Your task to perform on an android device: add a label to a message in the gmail app Image 0: 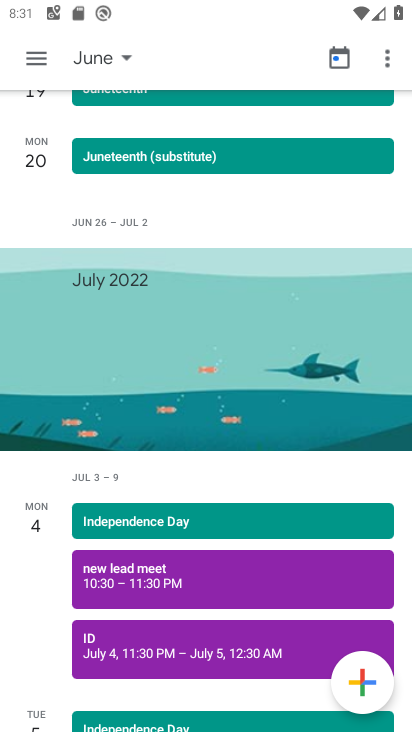
Step 0: drag from (352, 602) to (411, 283)
Your task to perform on an android device: add a label to a message in the gmail app Image 1: 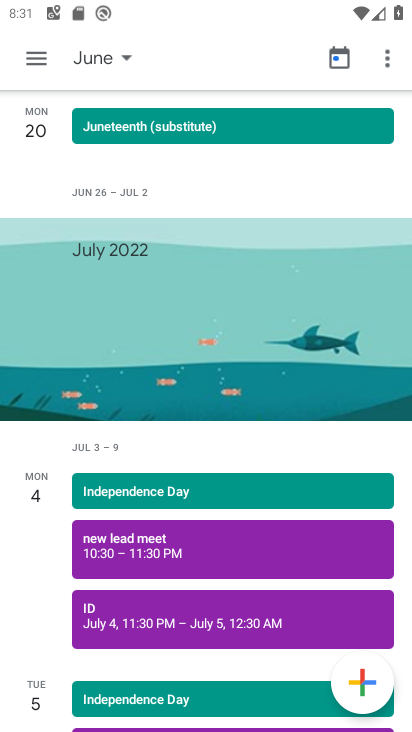
Step 1: press home button
Your task to perform on an android device: add a label to a message in the gmail app Image 2: 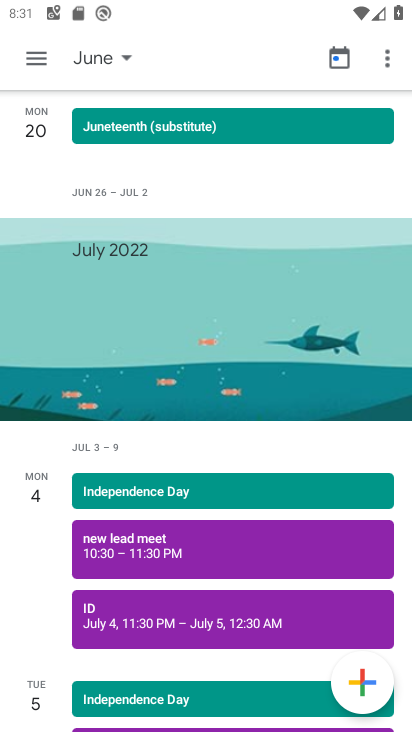
Step 2: press home button
Your task to perform on an android device: add a label to a message in the gmail app Image 3: 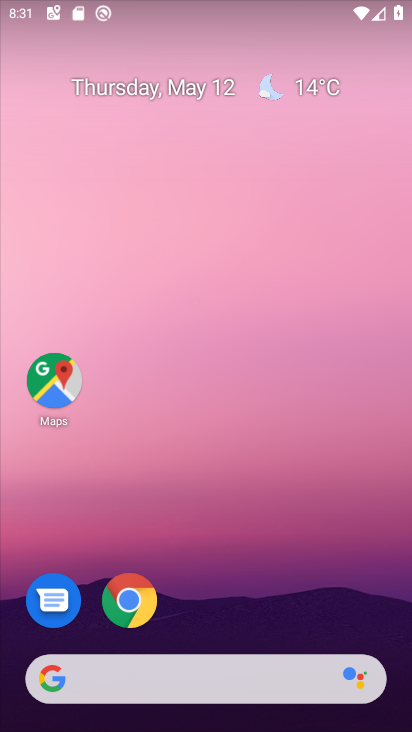
Step 3: drag from (287, 590) to (220, 309)
Your task to perform on an android device: add a label to a message in the gmail app Image 4: 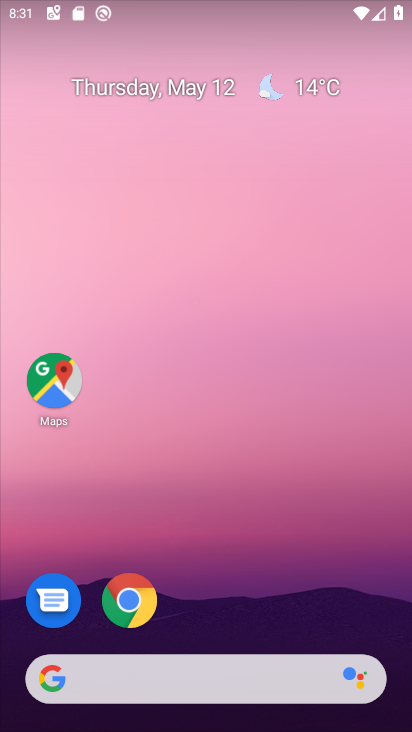
Step 4: drag from (252, 278) to (218, 124)
Your task to perform on an android device: add a label to a message in the gmail app Image 5: 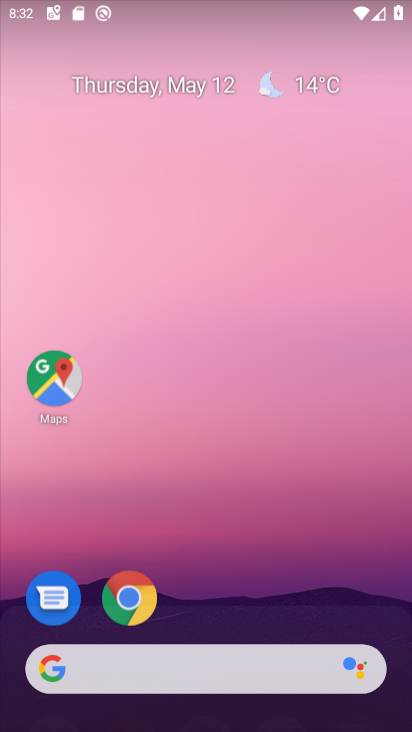
Step 5: drag from (199, 337) to (207, 1)
Your task to perform on an android device: add a label to a message in the gmail app Image 6: 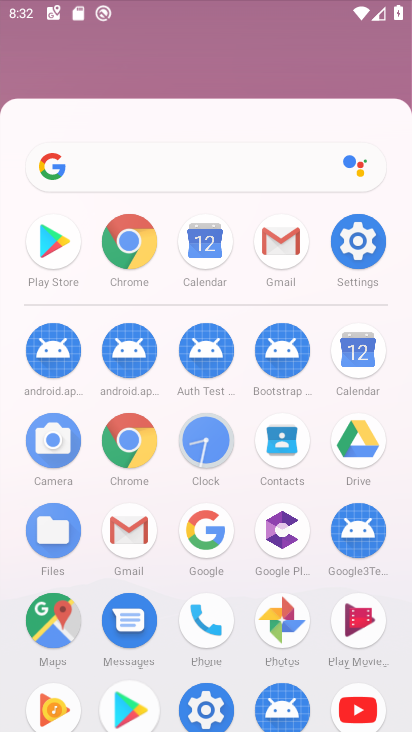
Step 6: drag from (203, 286) to (200, 40)
Your task to perform on an android device: add a label to a message in the gmail app Image 7: 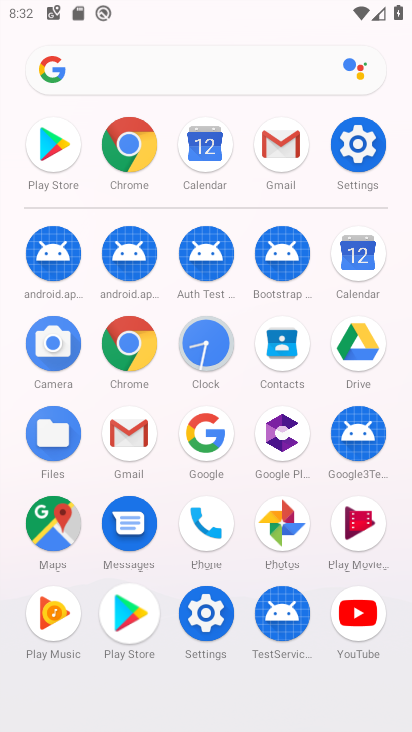
Step 7: click (131, 426)
Your task to perform on an android device: add a label to a message in the gmail app Image 8: 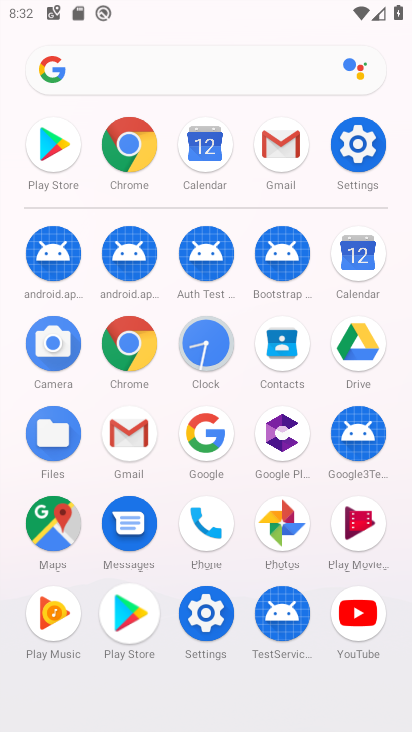
Step 8: click (131, 426)
Your task to perform on an android device: add a label to a message in the gmail app Image 9: 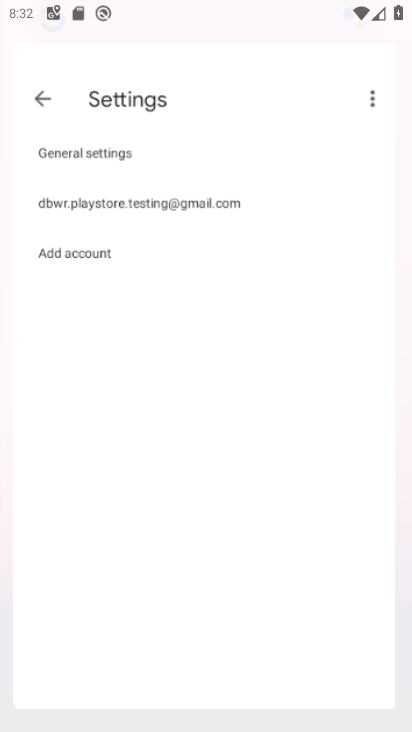
Step 9: click (131, 426)
Your task to perform on an android device: add a label to a message in the gmail app Image 10: 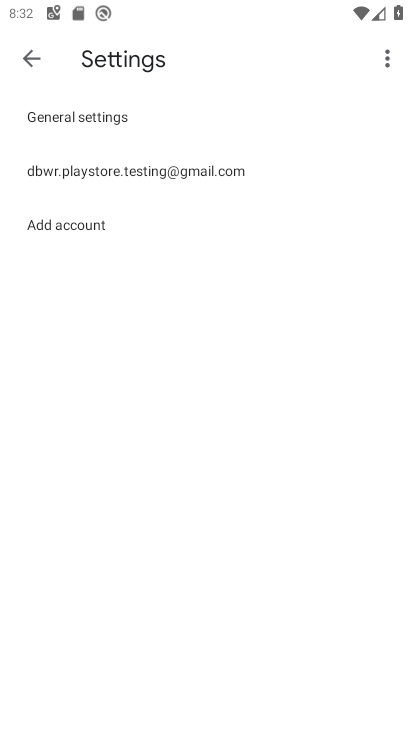
Step 10: click (106, 169)
Your task to perform on an android device: add a label to a message in the gmail app Image 11: 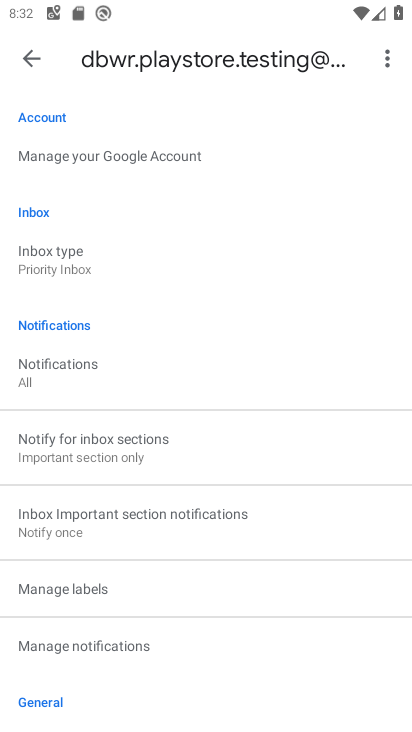
Step 11: press back button
Your task to perform on an android device: add a label to a message in the gmail app Image 12: 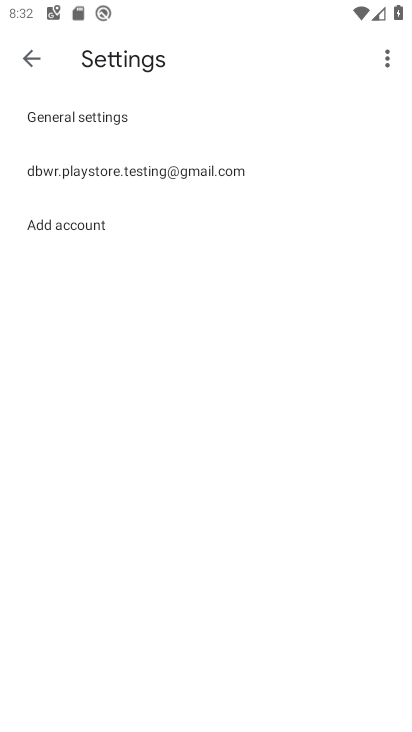
Step 12: press back button
Your task to perform on an android device: add a label to a message in the gmail app Image 13: 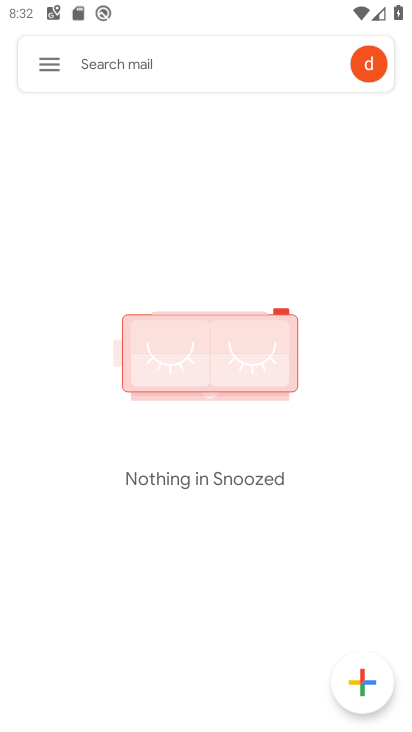
Step 13: click (46, 67)
Your task to perform on an android device: add a label to a message in the gmail app Image 14: 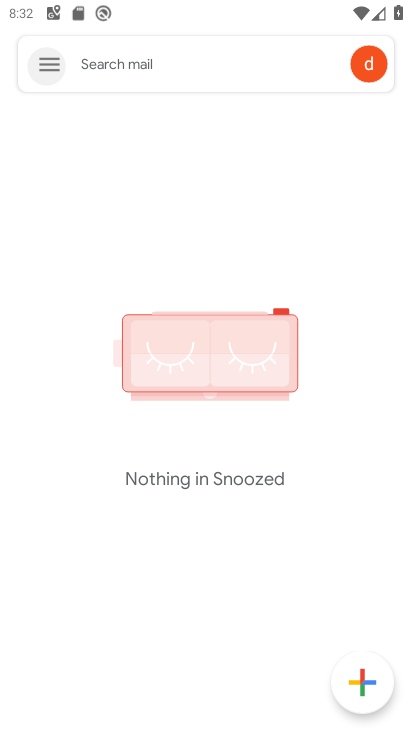
Step 14: click (46, 67)
Your task to perform on an android device: add a label to a message in the gmail app Image 15: 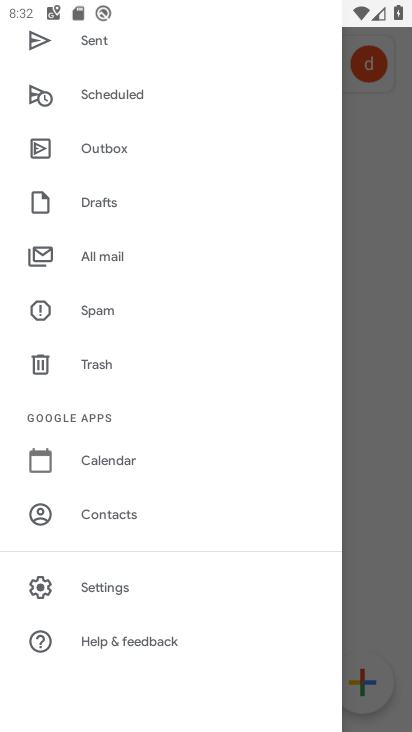
Step 15: click (106, 256)
Your task to perform on an android device: add a label to a message in the gmail app Image 16: 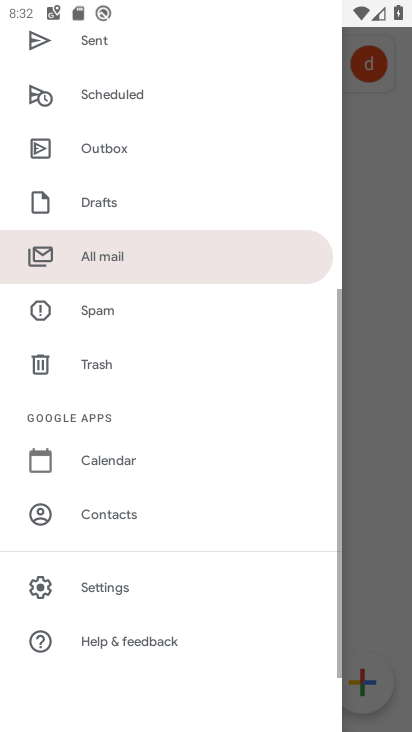
Step 16: click (106, 256)
Your task to perform on an android device: add a label to a message in the gmail app Image 17: 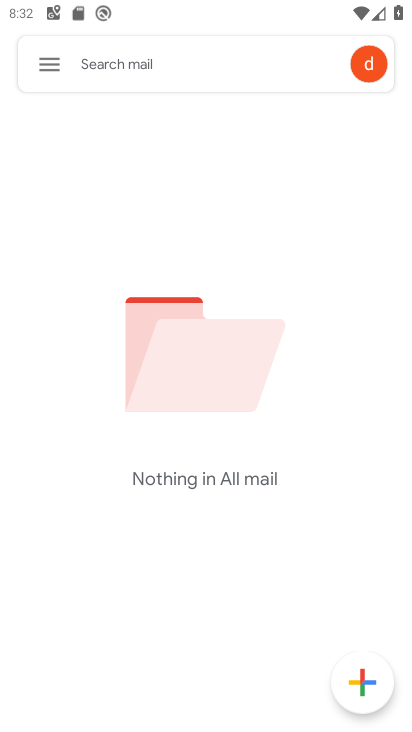
Step 17: task complete